Your task to perform on an android device: show emergency info Image 0: 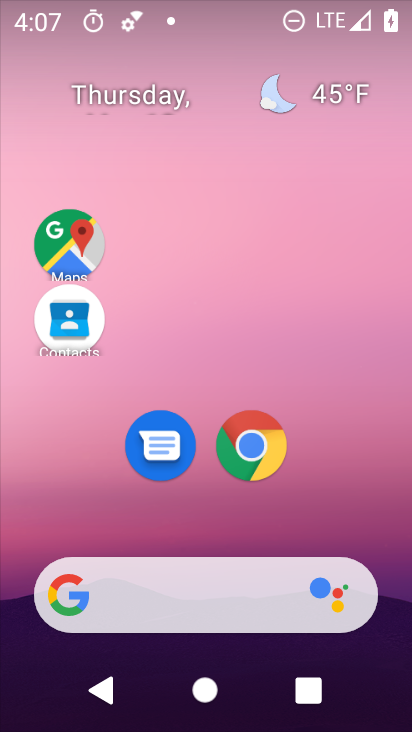
Step 0: drag from (321, 517) to (251, 35)
Your task to perform on an android device: show emergency info Image 1: 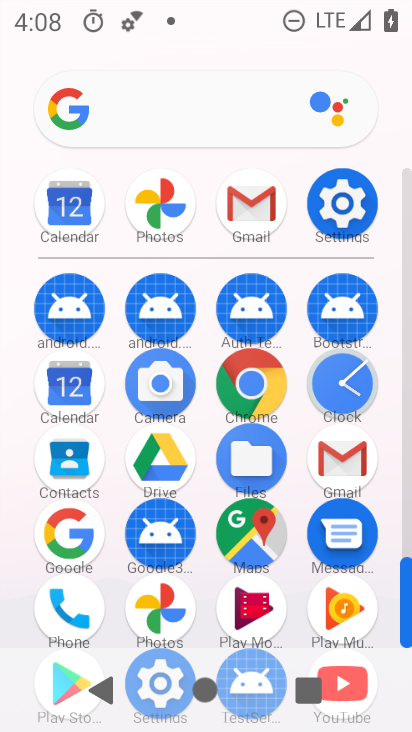
Step 1: click (340, 203)
Your task to perform on an android device: show emergency info Image 2: 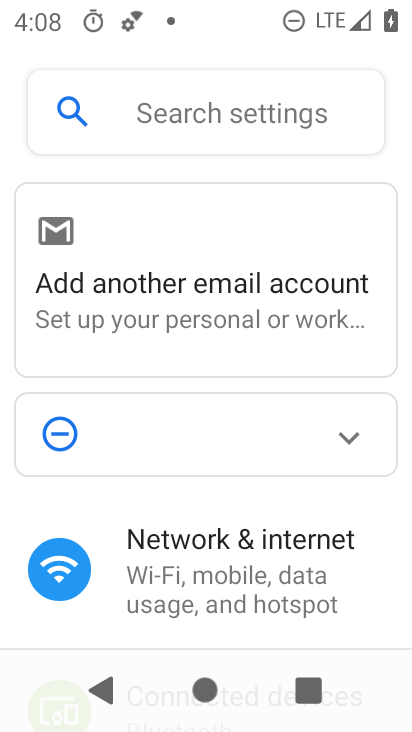
Step 2: drag from (151, 487) to (202, 373)
Your task to perform on an android device: show emergency info Image 3: 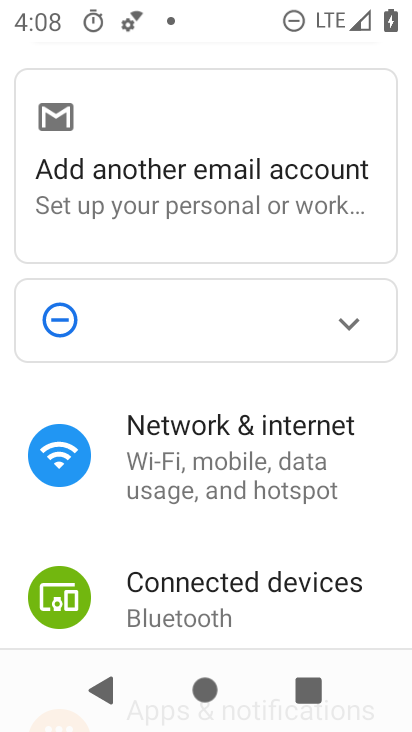
Step 3: drag from (179, 539) to (246, 312)
Your task to perform on an android device: show emergency info Image 4: 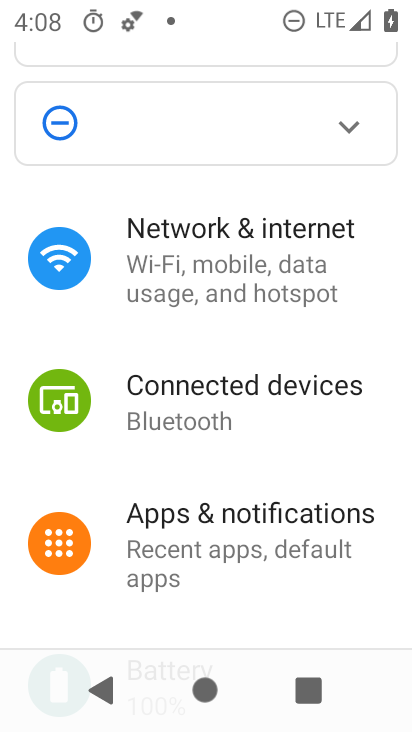
Step 4: drag from (221, 431) to (286, 243)
Your task to perform on an android device: show emergency info Image 5: 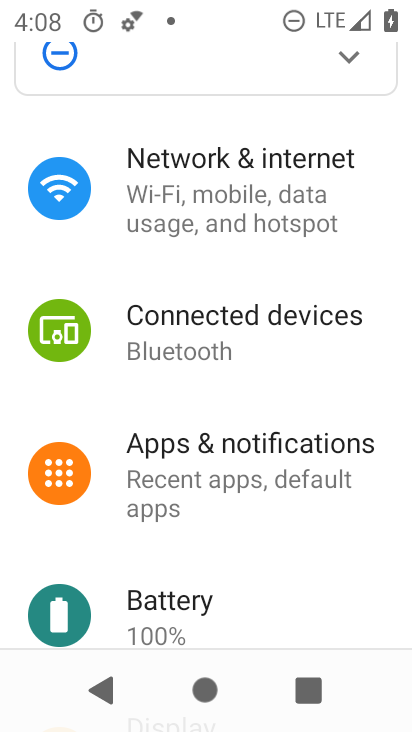
Step 5: drag from (186, 554) to (297, 371)
Your task to perform on an android device: show emergency info Image 6: 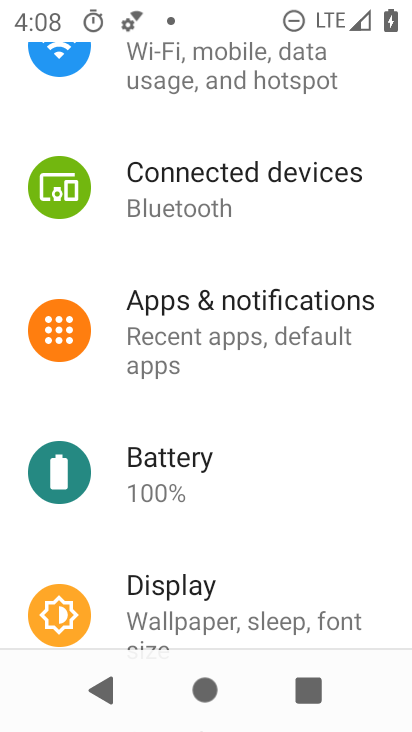
Step 6: drag from (207, 557) to (319, 379)
Your task to perform on an android device: show emergency info Image 7: 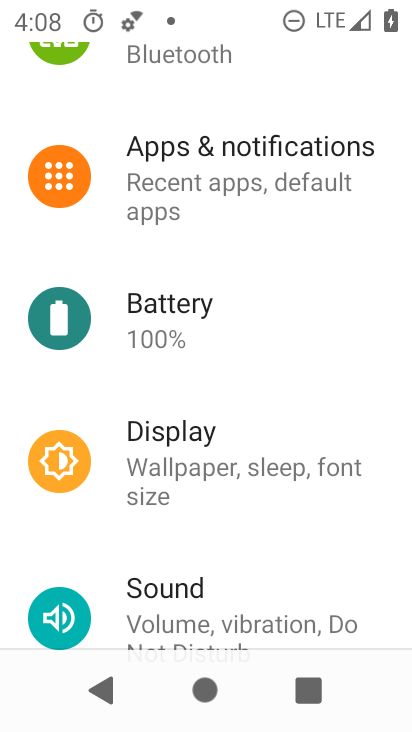
Step 7: drag from (257, 556) to (309, 342)
Your task to perform on an android device: show emergency info Image 8: 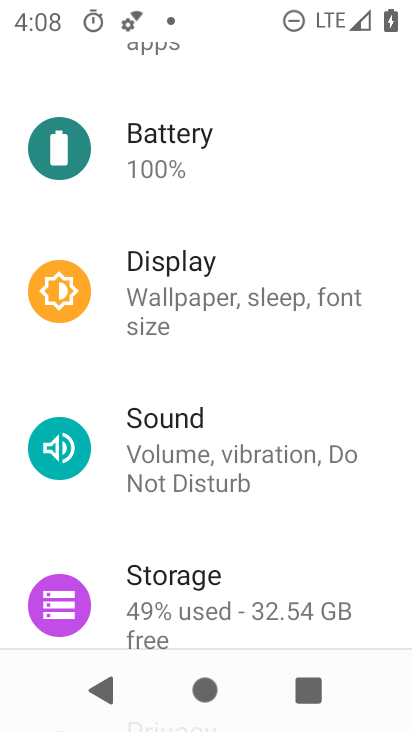
Step 8: drag from (227, 551) to (313, 372)
Your task to perform on an android device: show emergency info Image 9: 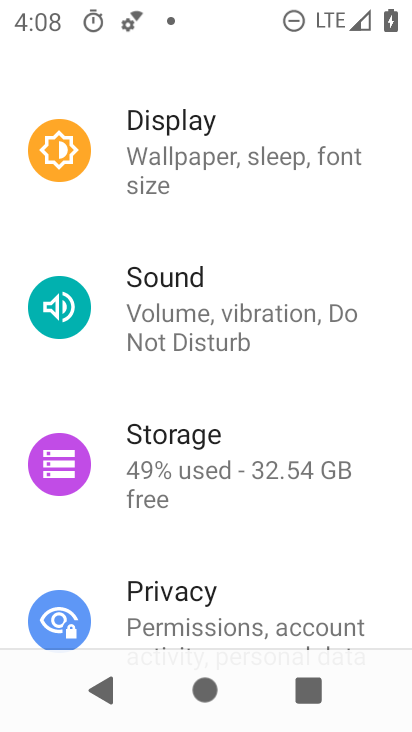
Step 9: drag from (250, 573) to (273, 412)
Your task to perform on an android device: show emergency info Image 10: 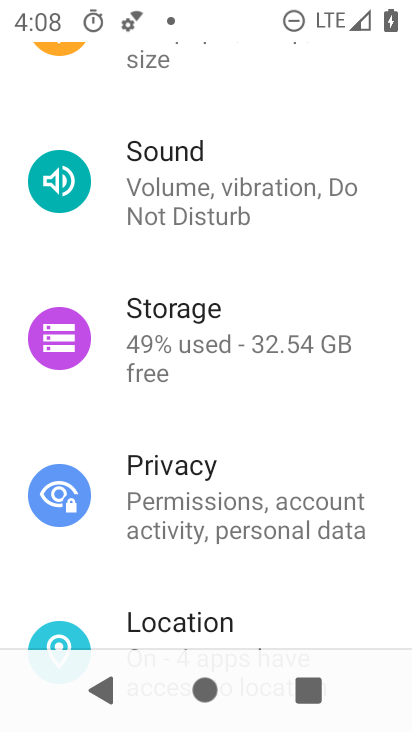
Step 10: drag from (220, 590) to (280, 450)
Your task to perform on an android device: show emergency info Image 11: 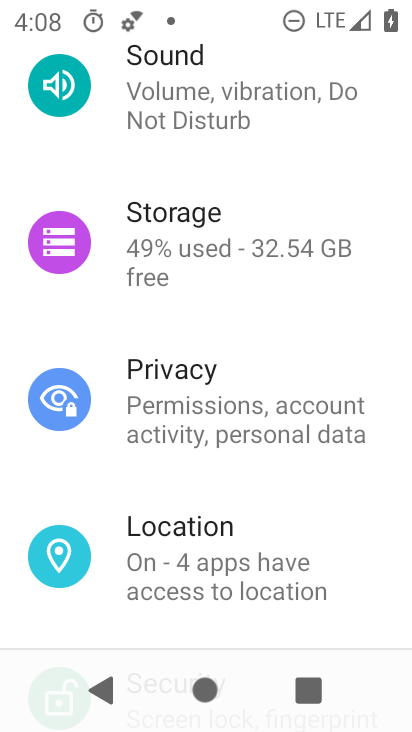
Step 11: drag from (260, 496) to (326, 306)
Your task to perform on an android device: show emergency info Image 12: 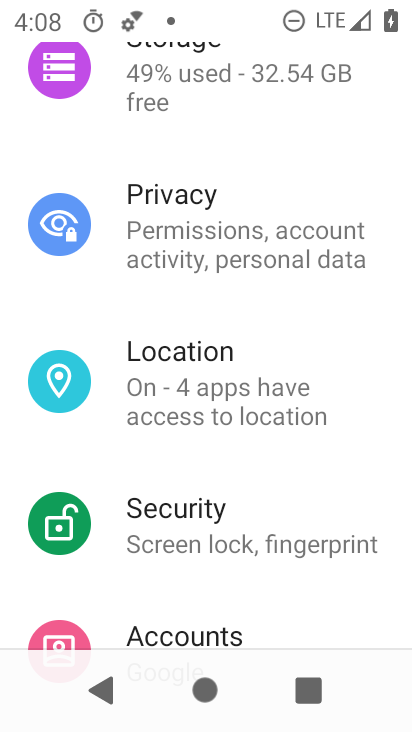
Step 12: drag from (222, 473) to (273, 321)
Your task to perform on an android device: show emergency info Image 13: 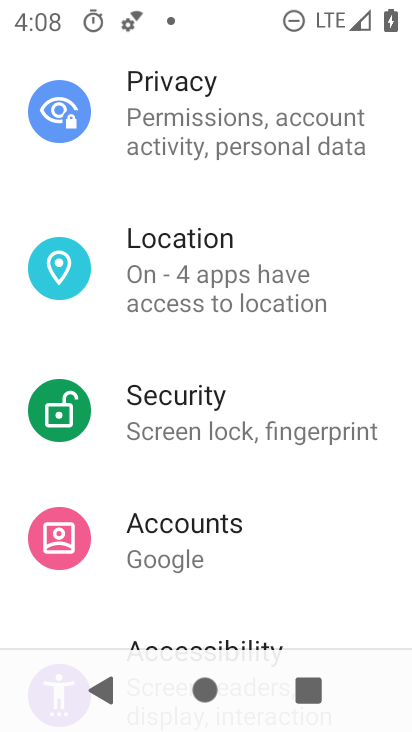
Step 13: drag from (175, 569) to (262, 370)
Your task to perform on an android device: show emergency info Image 14: 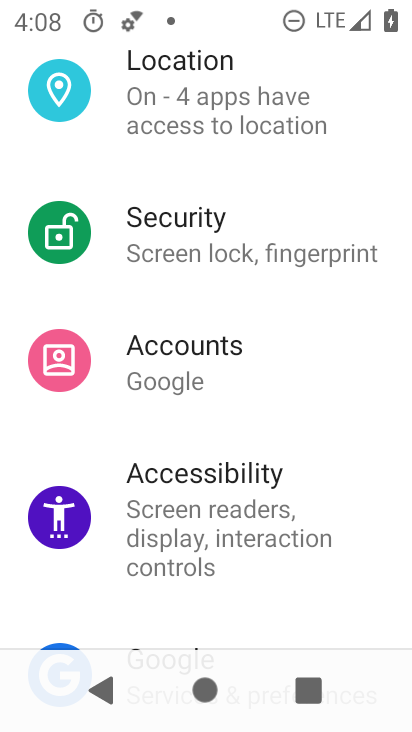
Step 14: drag from (172, 582) to (294, 417)
Your task to perform on an android device: show emergency info Image 15: 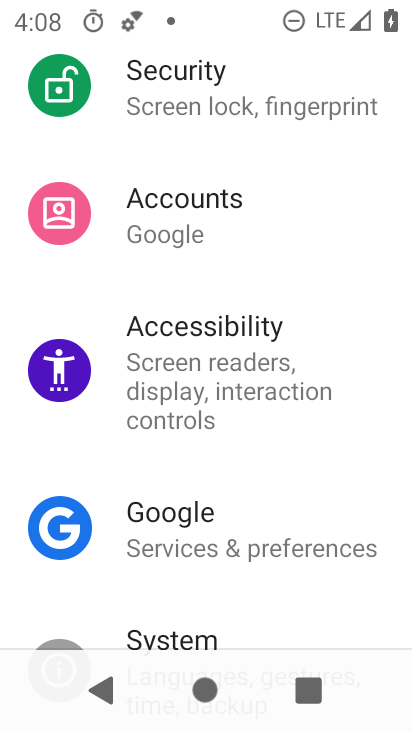
Step 15: drag from (201, 561) to (299, 413)
Your task to perform on an android device: show emergency info Image 16: 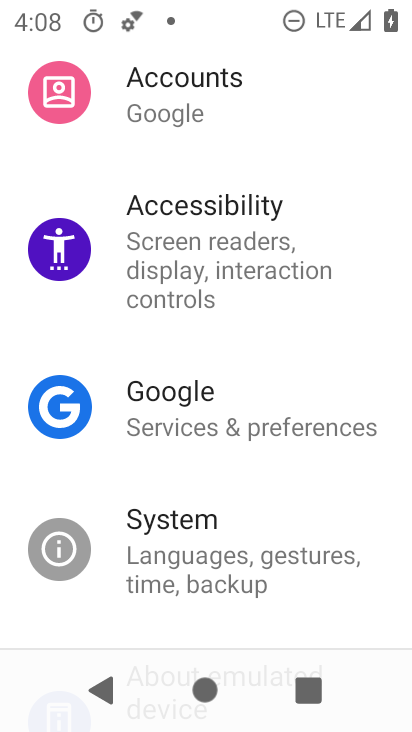
Step 16: drag from (272, 600) to (304, 414)
Your task to perform on an android device: show emergency info Image 17: 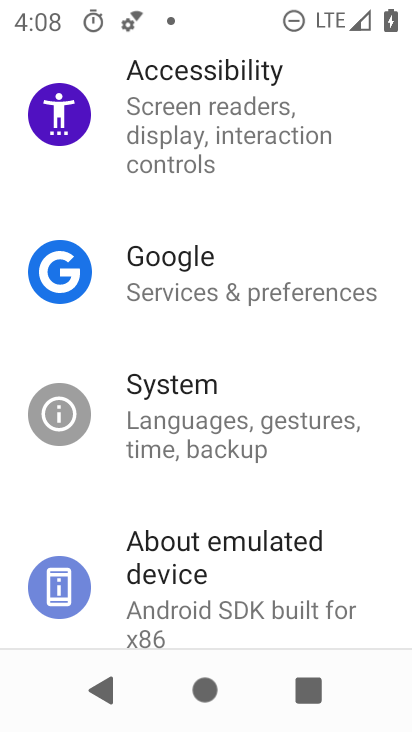
Step 17: click (192, 533)
Your task to perform on an android device: show emergency info Image 18: 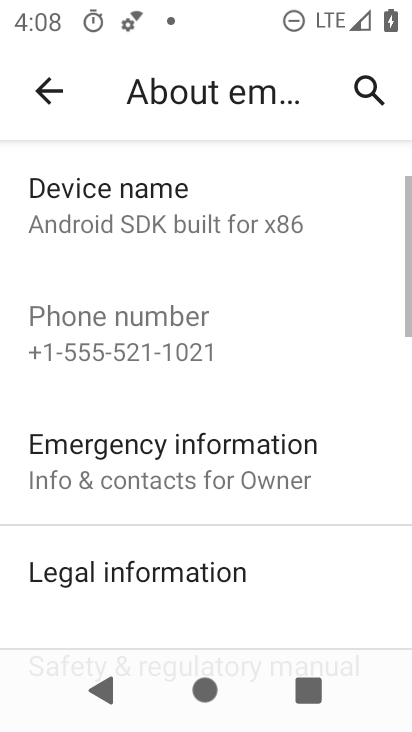
Step 18: click (211, 455)
Your task to perform on an android device: show emergency info Image 19: 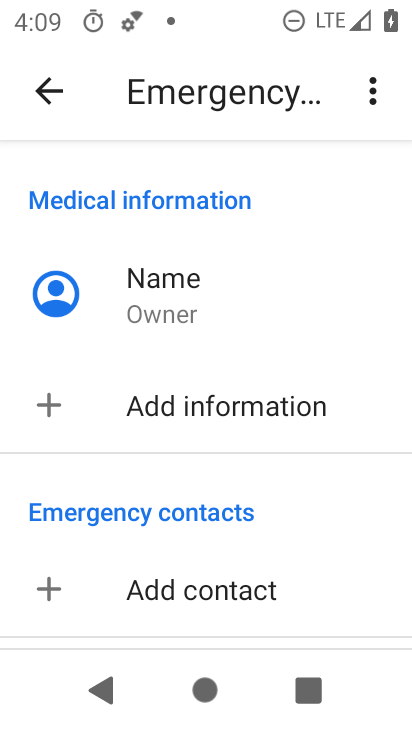
Step 19: task complete